Your task to perform on an android device: open device folders in google photos Image 0: 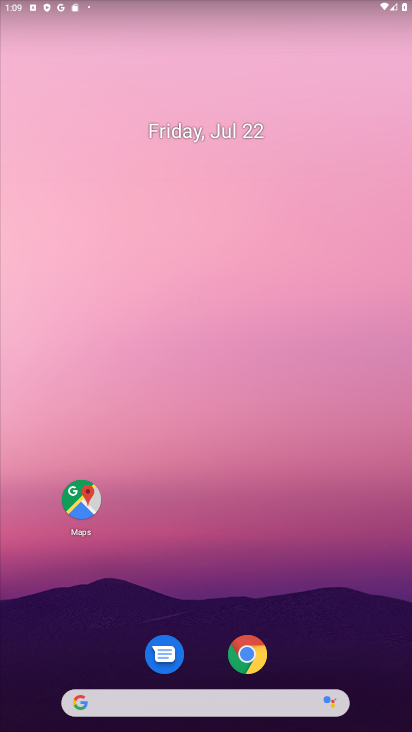
Step 0: press home button
Your task to perform on an android device: open device folders in google photos Image 1: 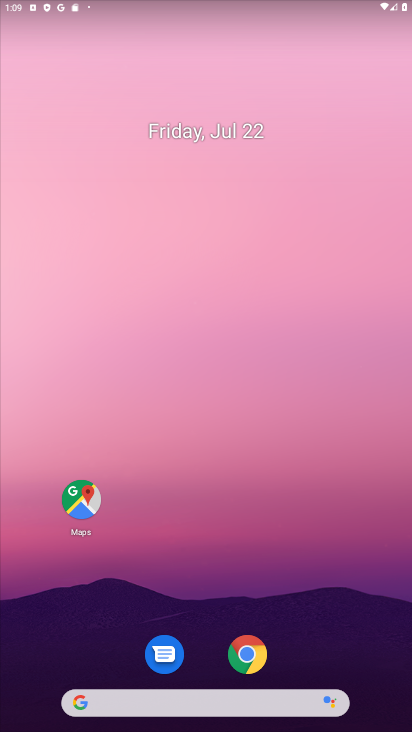
Step 1: drag from (247, 696) to (310, 178)
Your task to perform on an android device: open device folders in google photos Image 2: 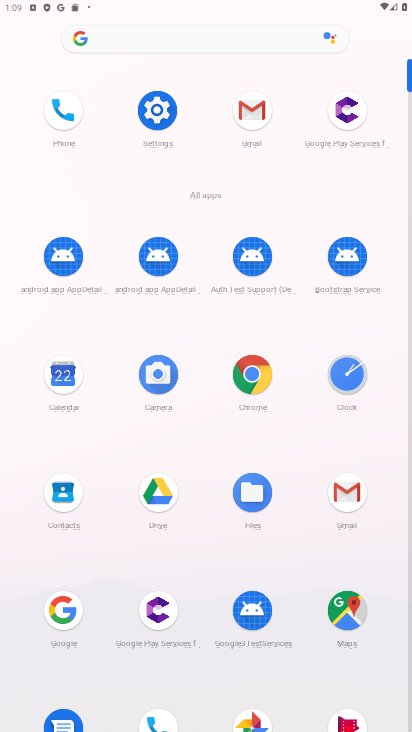
Step 2: click (244, 707)
Your task to perform on an android device: open device folders in google photos Image 3: 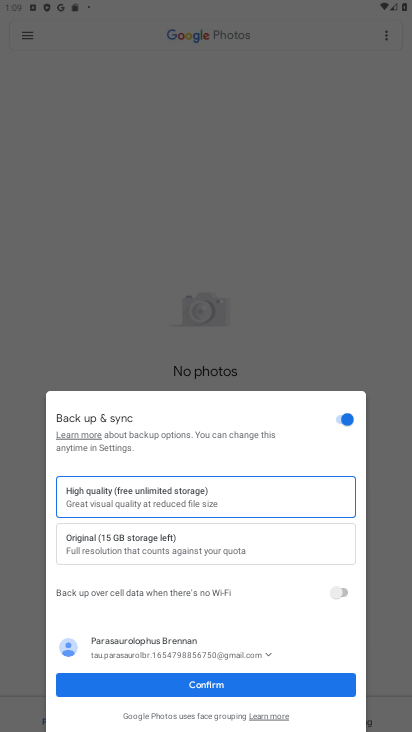
Step 3: click (232, 684)
Your task to perform on an android device: open device folders in google photos Image 4: 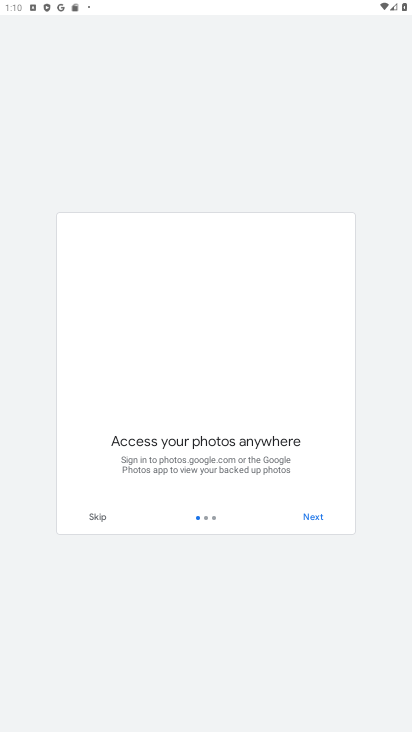
Step 4: click (302, 505)
Your task to perform on an android device: open device folders in google photos Image 5: 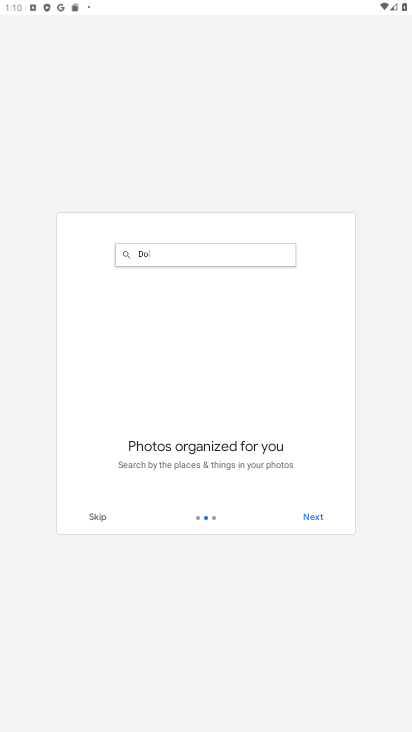
Step 5: click (304, 511)
Your task to perform on an android device: open device folders in google photos Image 6: 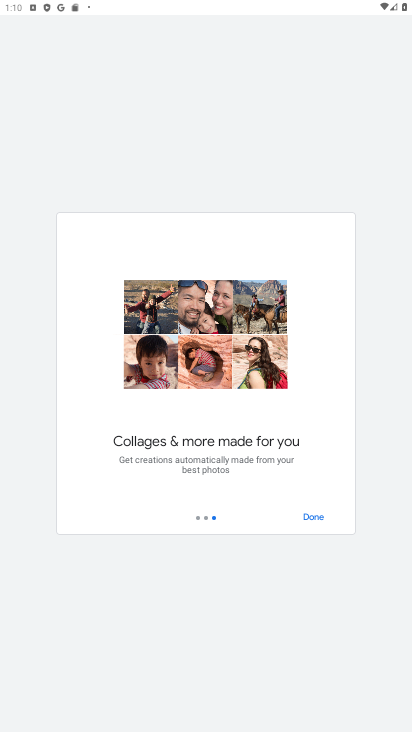
Step 6: click (303, 511)
Your task to perform on an android device: open device folders in google photos Image 7: 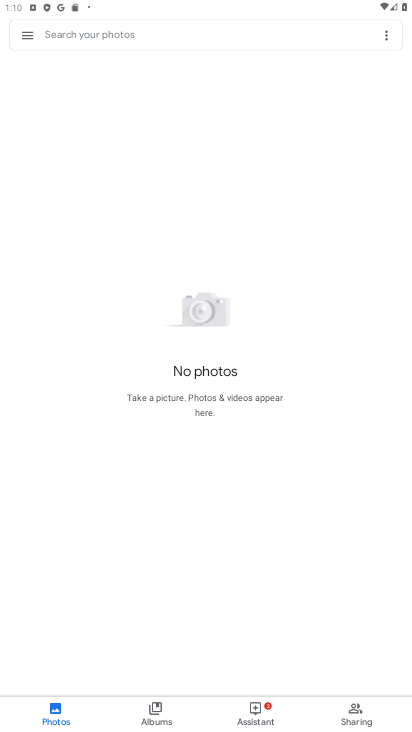
Step 7: click (24, 26)
Your task to perform on an android device: open device folders in google photos Image 8: 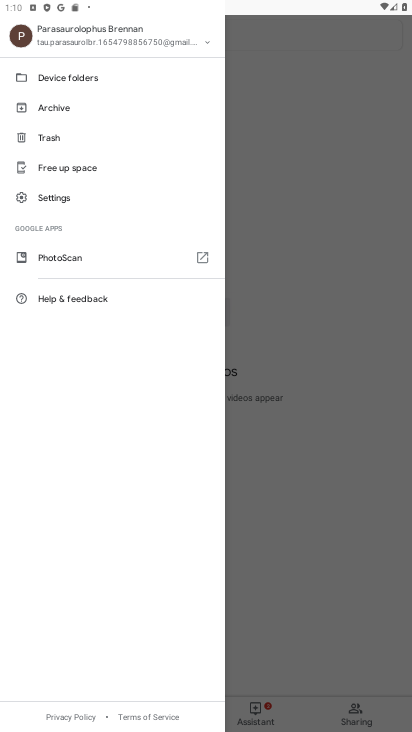
Step 8: click (65, 74)
Your task to perform on an android device: open device folders in google photos Image 9: 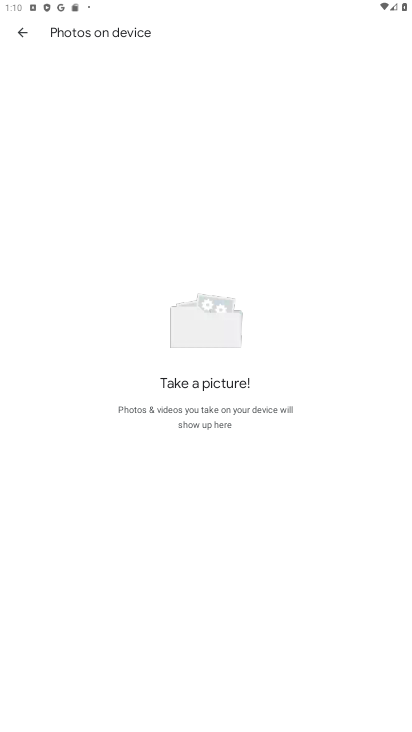
Step 9: task complete